Your task to perform on an android device: remove spam from my inbox in the gmail app Image 0: 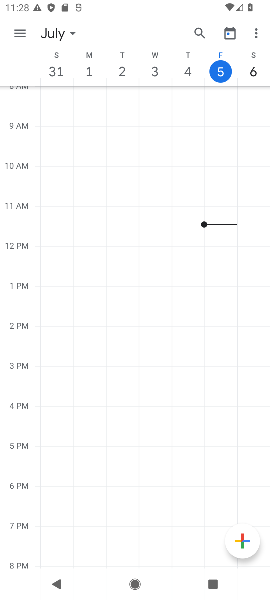
Step 0: press home button
Your task to perform on an android device: remove spam from my inbox in the gmail app Image 1: 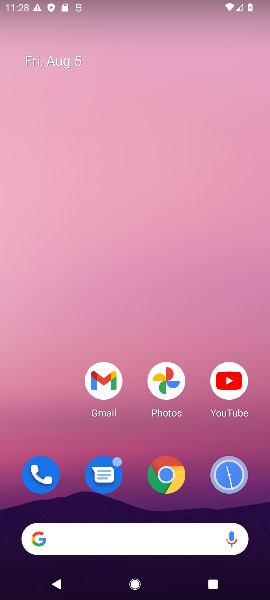
Step 1: click (106, 373)
Your task to perform on an android device: remove spam from my inbox in the gmail app Image 2: 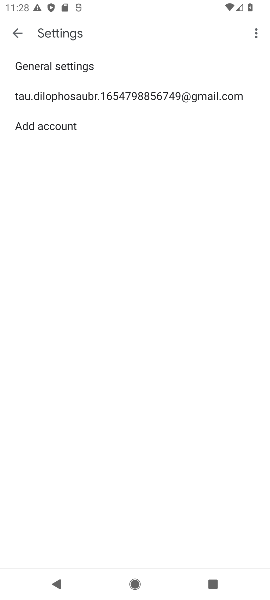
Step 2: click (14, 34)
Your task to perform on an android device: remove spam from my inbox in the gmail app Image 3: 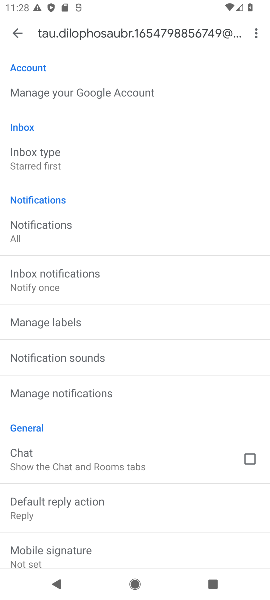
Step 3: click (18, 37)
Your task to perform on an android device: remove spam from my inbox in the gmail app Image 4: 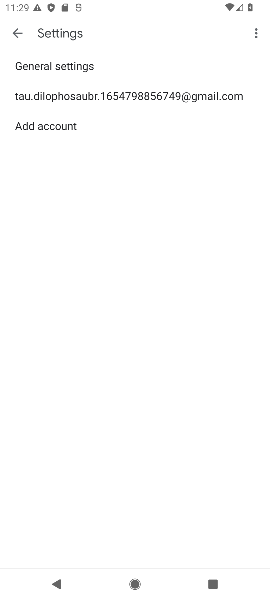
Step 4: click (20, 34)
Your task to perform on an android device: remove spam from my inbox in the gmail app Image 5: 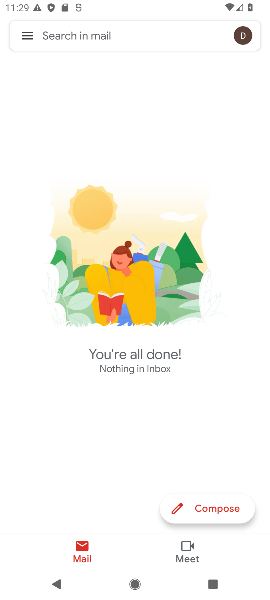
Step 5: click (20, 37)
Your task to perform on an android device: remove spam from my inbox in the gmail app Image 6: 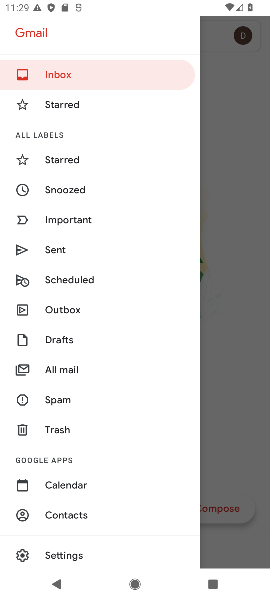
Step 6: click (74, 401)
Your task to perform on an android device: remove spam from my inbox in the gmail app Image 7: 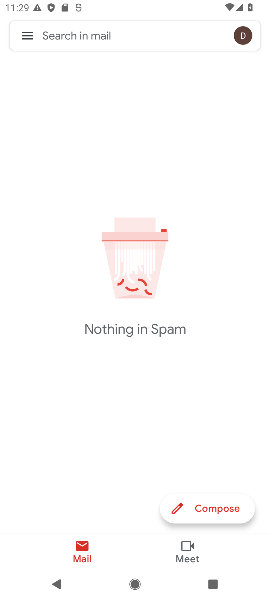
Step 7: task complete